Your task to perform on an android device: open wifi settings Image 0: 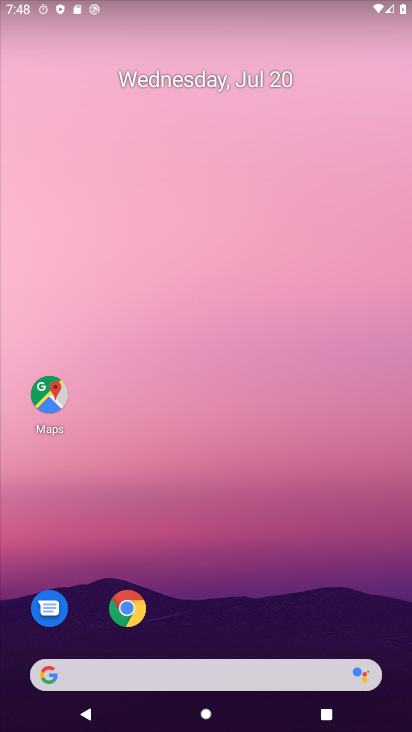
Step 0: drag from (219, 636) to (233, 137)
Your task to perform on an android device: open wifi settings Image 1: 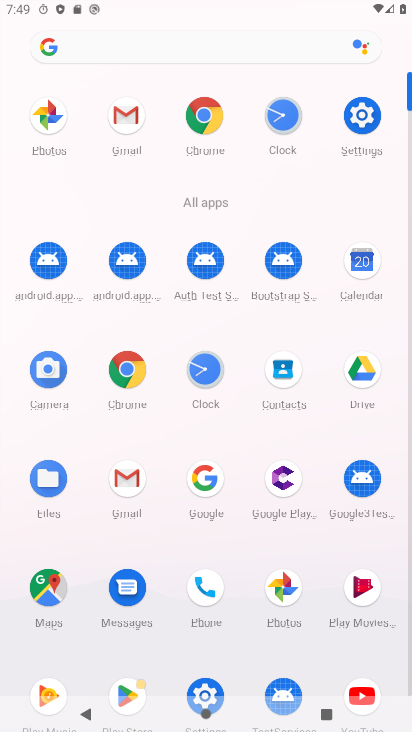
Step 1: drag from (209, 656) to (213, 425)
Your task to perform on an android device: open wifi settings Image 2: 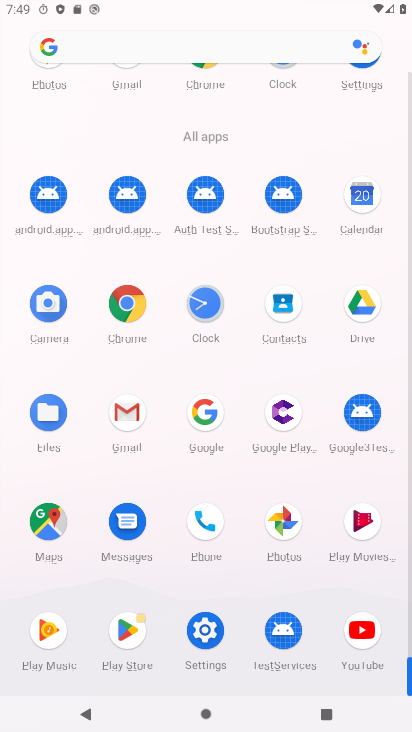
Step 2: click (210, 636)
Your task to perform on an android device: open wifi settings Image 3: 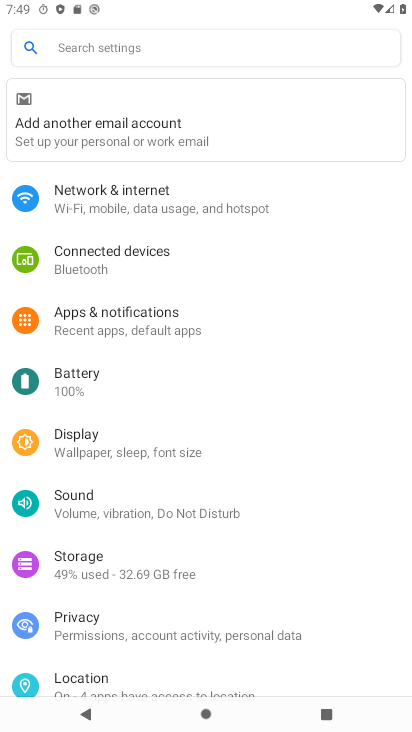
Step 3: click (177, 210)
Your task to perform on an android device: open wifi settings Image 4: 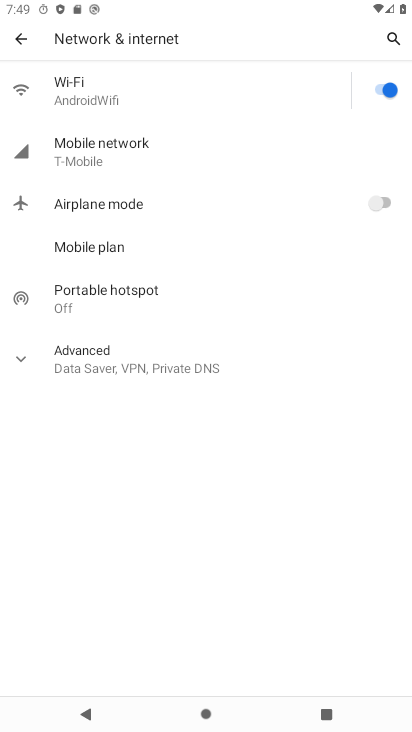
Step 4: click (87, 91)
Your task to perform on an android device: open wifi settings Image 5: 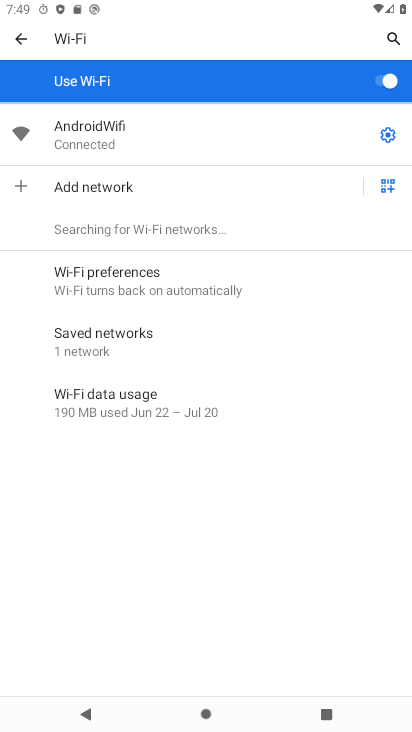
Step 5: task complete